Your task to perform on an android device: Open Amazon Image 0: 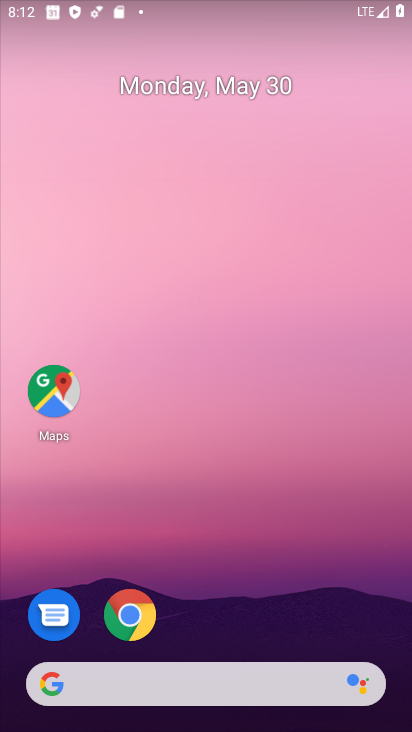
Step 0: click (128, 614)
Your task to perform on an android device: Open Amazon Image 1: 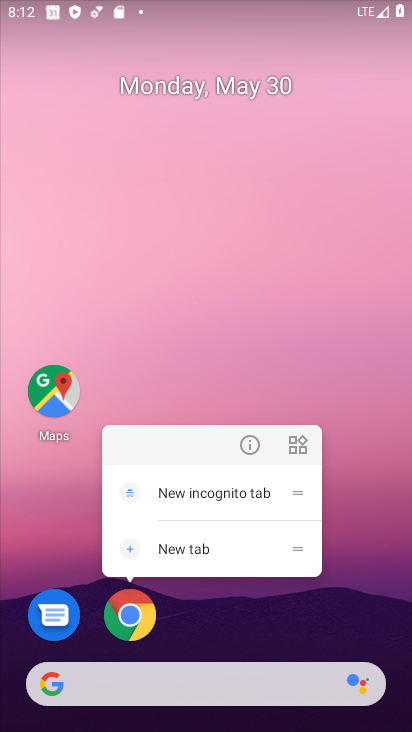
Step 1: click (122, 614)
Your task to perform on an android device: Open Amazon Image 2: 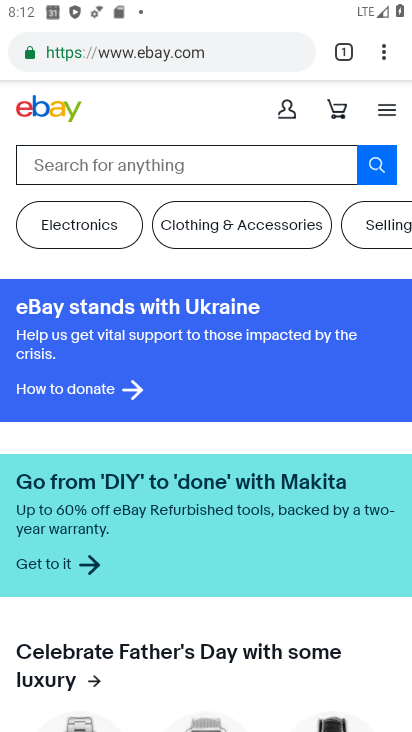
Step 2: click (343, 55)
Your task to perform on an android device: Open Amazon Image 3: 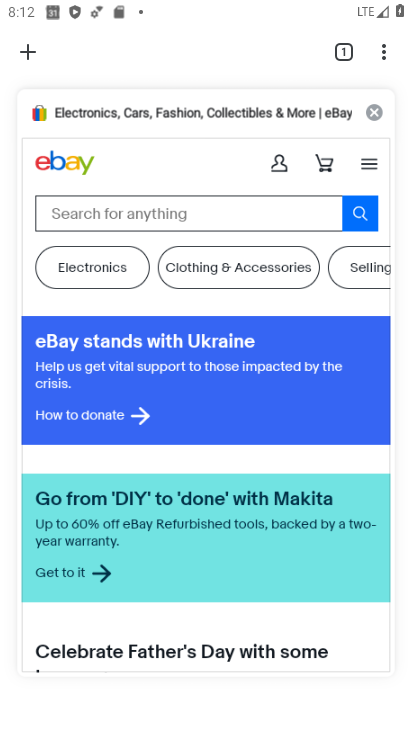
Step 3: click (369, 118)
Your task to perform on an android device: Open Amazon Image 4: 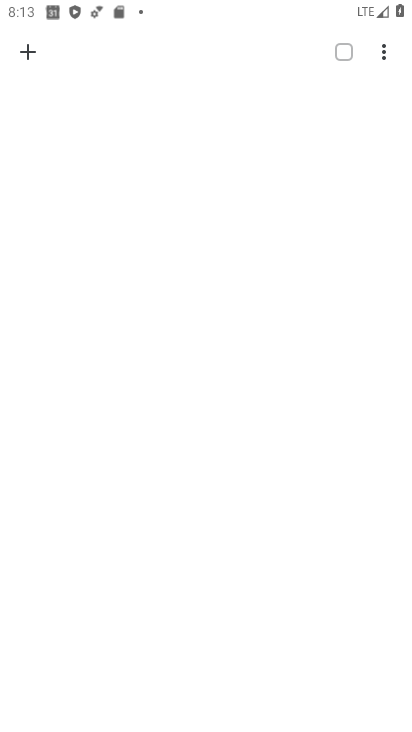
Step 4: click (27, 55)
Your task to perform on an android device: Open Amazon Image 5: 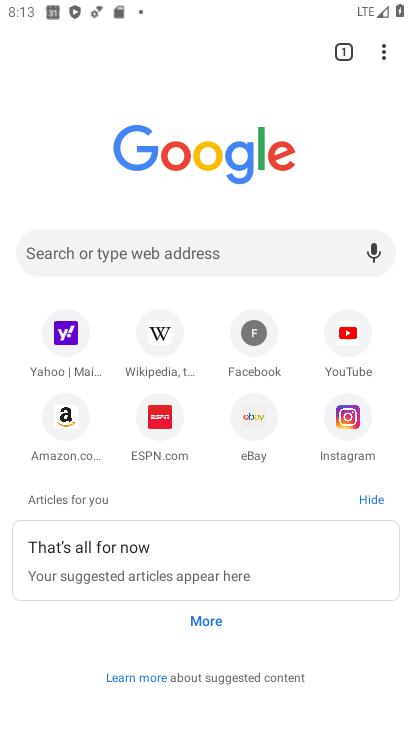
Step 5: click (65, 433)
Your task to perform on an android device: Open Amazon Image 6: 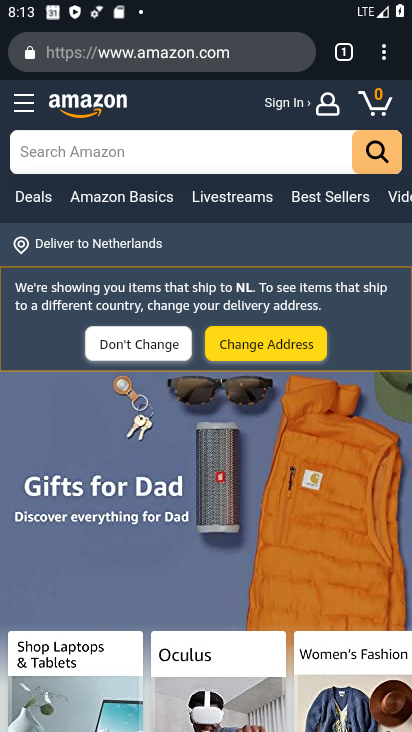
Step 6: task complete